Your task to perform on an android device: empty trash in google photos Image 0: 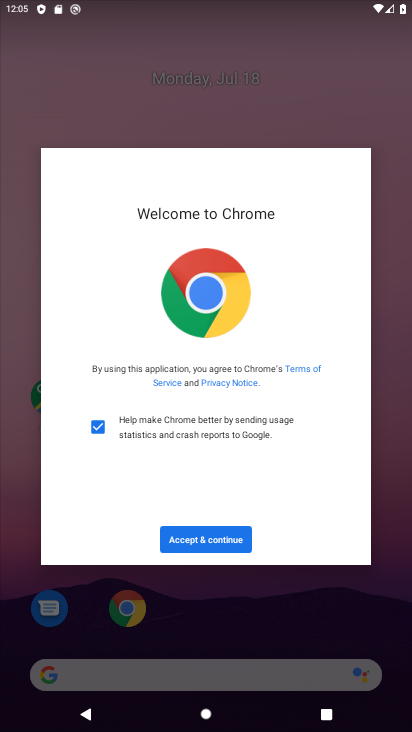
Step 0: press home button
Your task to perform on an android device: empty trash in google photos Image 1: 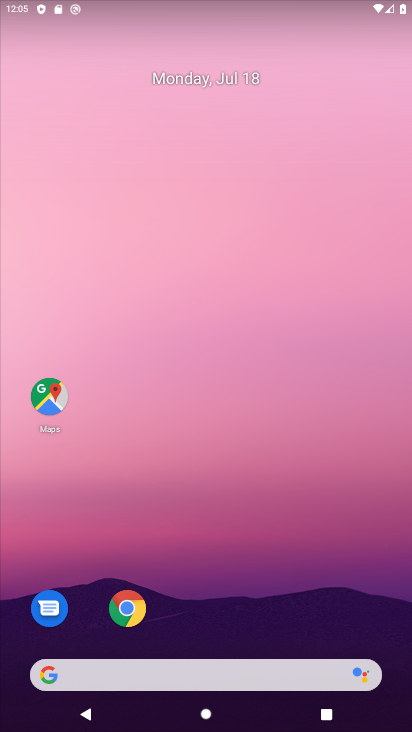
Step 1: drag from (234, 343) to (180, 0)
Your task to perform on an android device: empty trash in google photos Image 2: 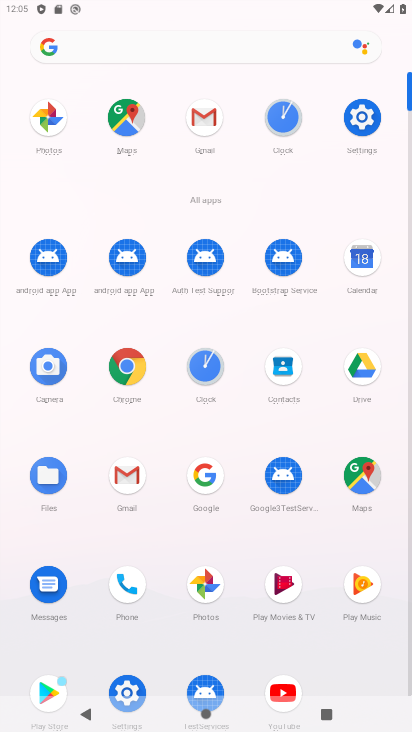
Step 2: click (195, 599)
Your task to perform on an android device: empty trash in google photos Image 3: 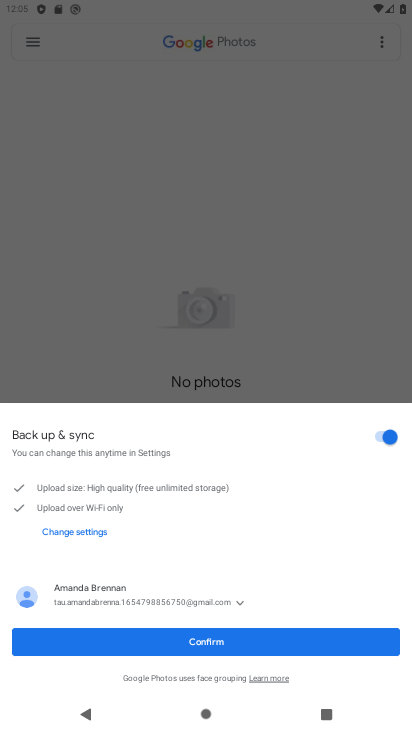
Step 3: click (223, 638)
Your task to perform on an android device: empty trash in google photos Image 4: 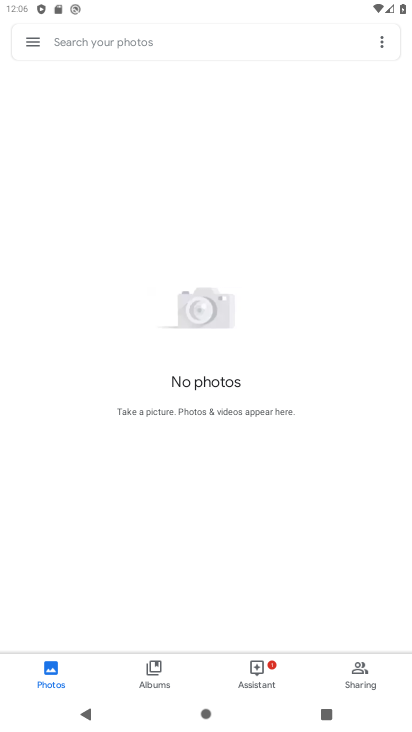
Step 4: click (42, 37)
Your task to perform on an android device: empty trash in google photos Image 5: 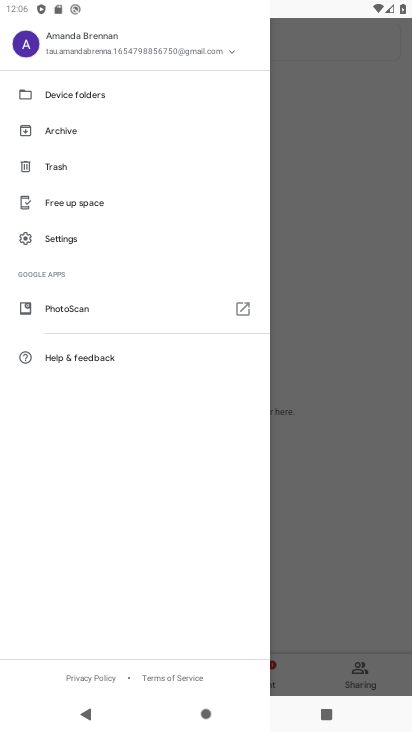
Step 5: click (53, 159)
Your task to perform on an android device: empty trash in google photos Image 6: 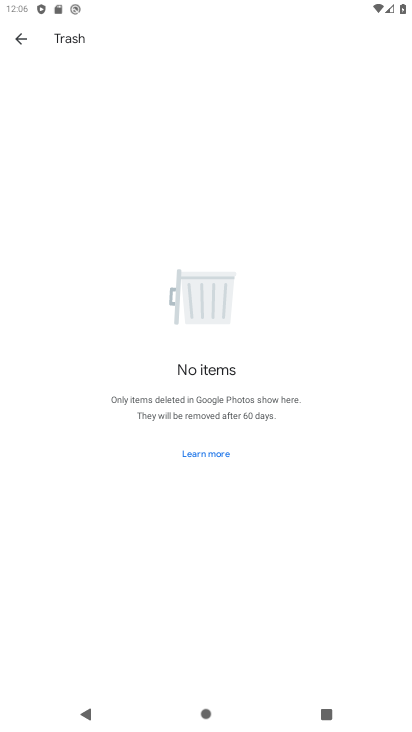
Step 6: task complete